Your task to perform on an android device: Open the calendar and show me this week's events? Image 0: 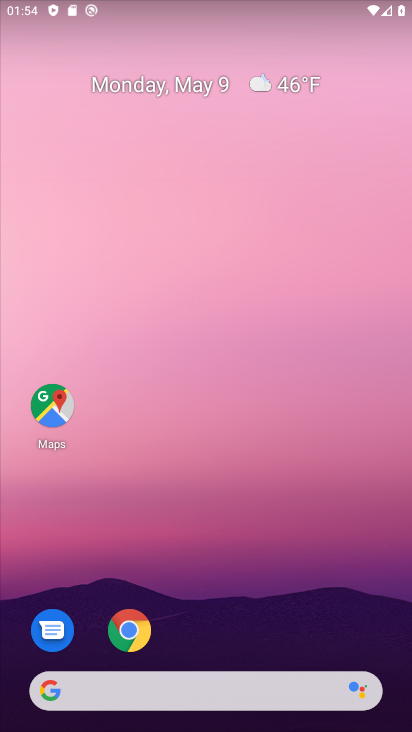
Step 0: drag from (231, 628) to (209, 163)
Your task to perform on an android device: Open the calendar and show me this week's events? Image 1: 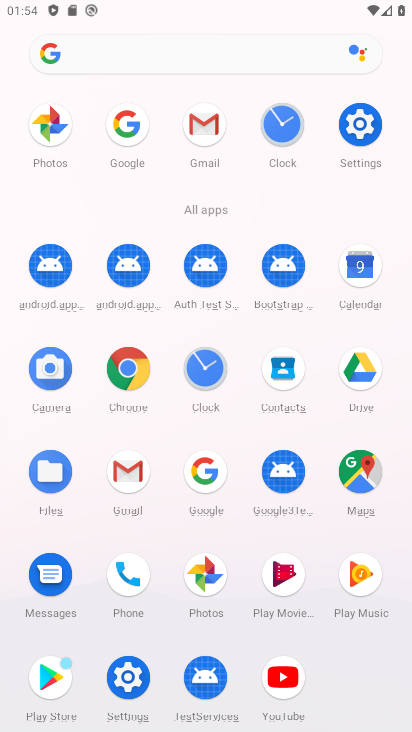
Step 1: click (362, 268)
Your task to perform on an android device: Open the calendar and show me this week's events? Image 2: 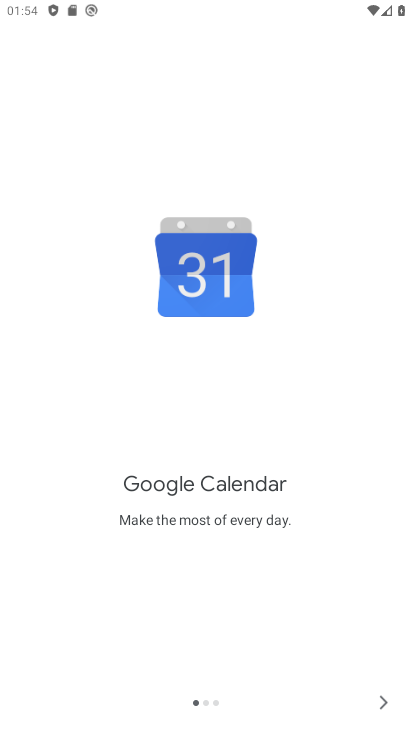
Step 2: click (383, 696)
Your task to perform on an android device: Open the calendar and show me this week's events? Image 3: 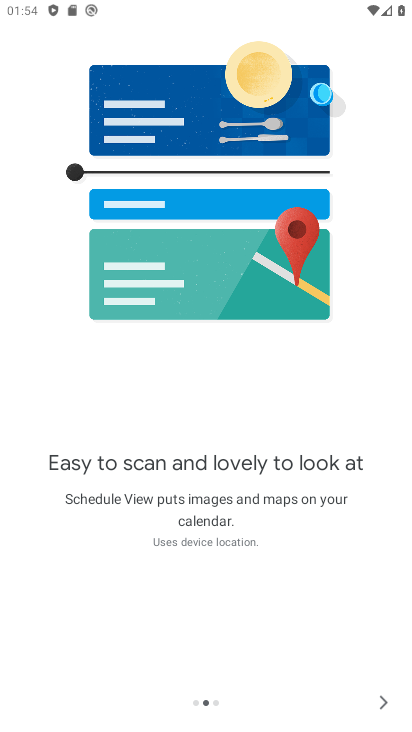
Step 3: click (383, 696)
Your task to perform on an android device: Open the calendar and show me this week's events? Image 4: 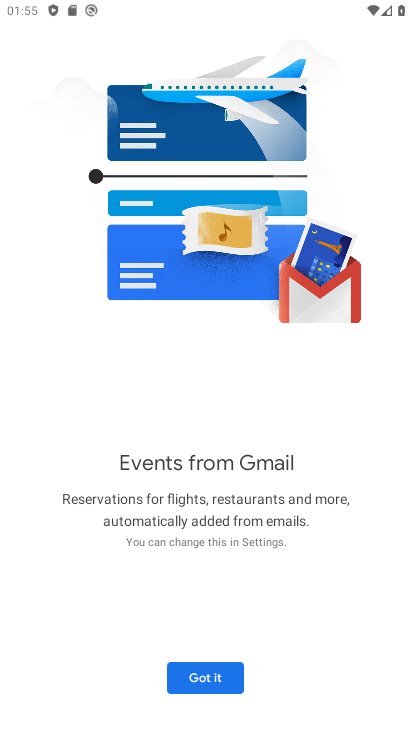
Step 4: click (211, 678)
Your task to perform on an android device: Open the calendar and show me this week's events? Image 5: 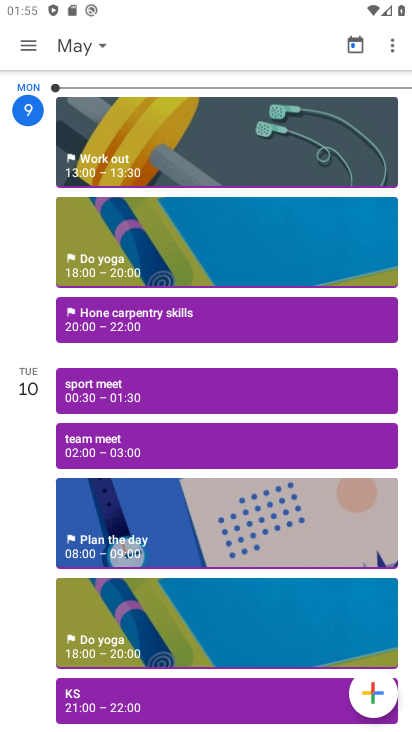
Step 5: click (99, 45)
Your task to perform on an android device: Open the calendar and show me this week's events? Image 6: 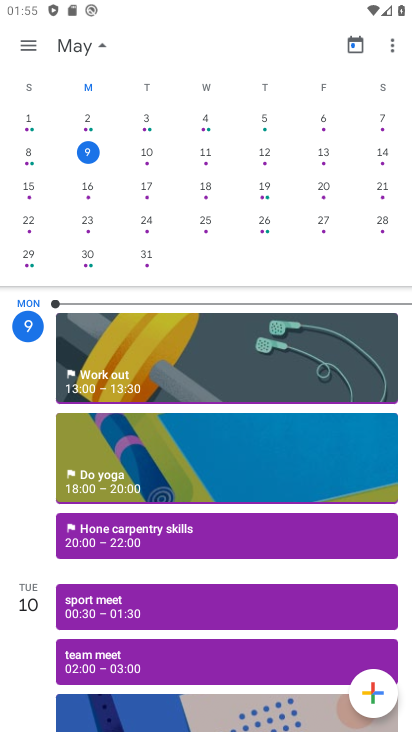
Step 6: task complete